Your task to perform on an android device: Search for Mexican restaurants on Maps Image 0: 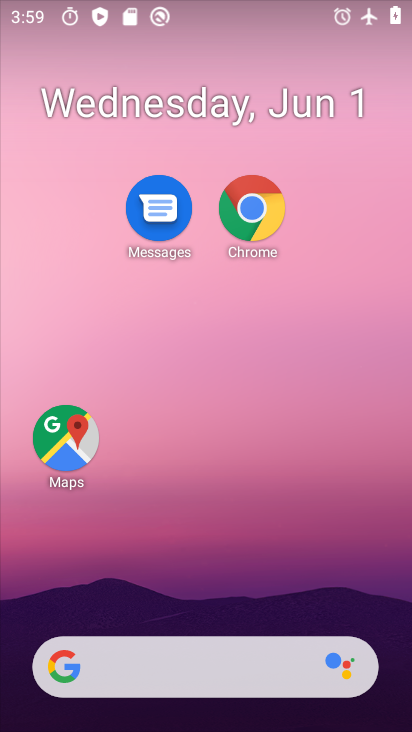
Step 0: click (45, 450)
Your task to perform on an android device: Search for Mexican restaurants on Maps Image 1: 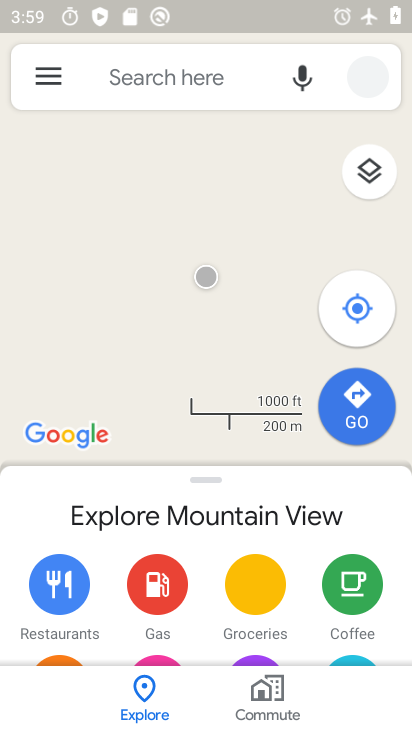
Step 1: click (163, 89)
Your task to perform on an android device: Search for Mexican restaurants on Maps Image 2: 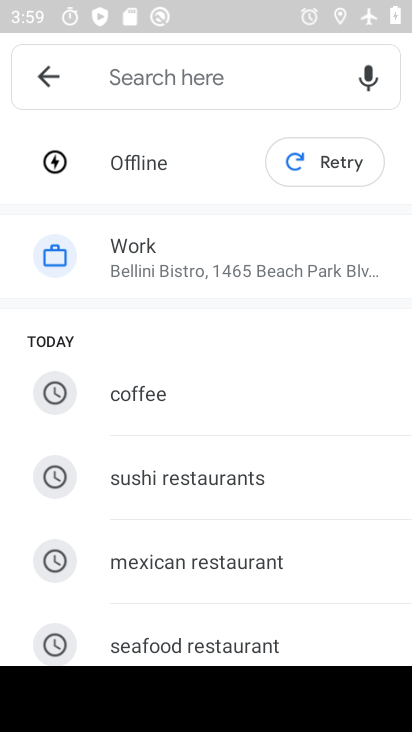
Step 2: click (223, 563)
Your task to perform on an android device: Search for Mexican restaurants on Maps Image 3: 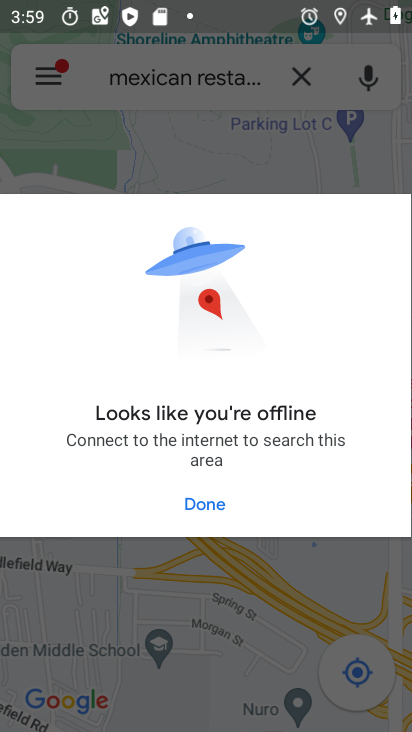
Step 3: task complete